Your task to perform on an android device: Open calendar and show me the first week of next month Image 0: 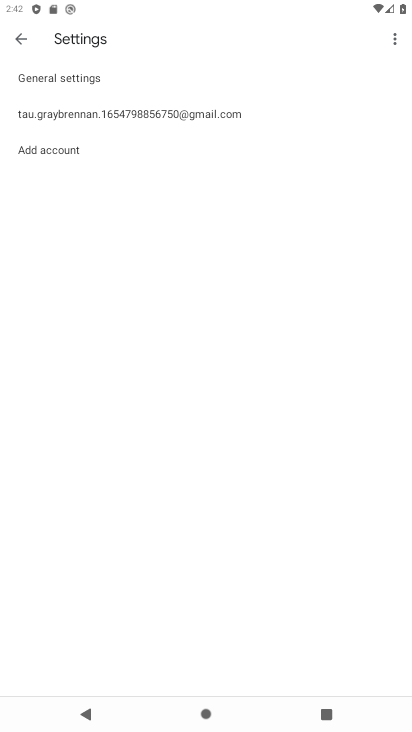
Step 0: press home button
Your task to perform on an android device: Open calendar and show me the first week of next month Image 1: 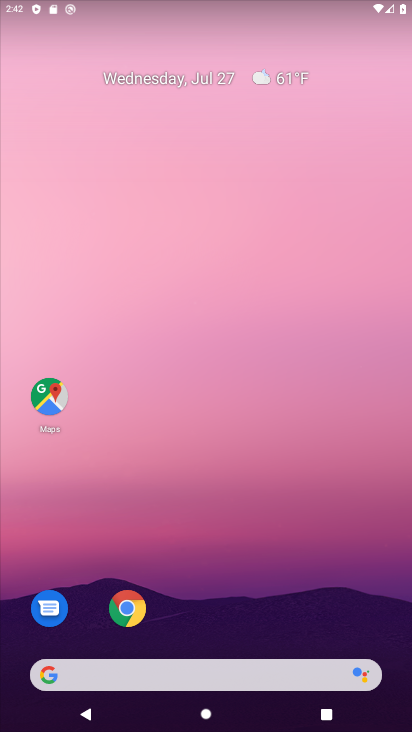
Step 1: drag from (316, 613) to (260, 63)
Your task to perform on an android device: Open calendar and show me the first week of next month Image 2: 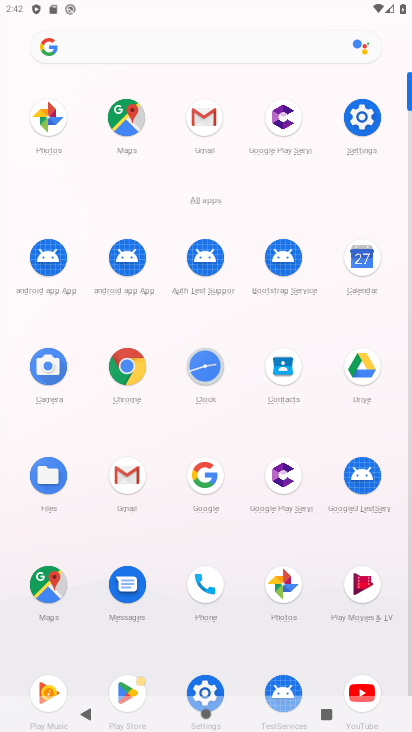
Step 2: click (368, 268)
Your task to perform on an android device: Open calendar and show me the first week of next month Image 3: 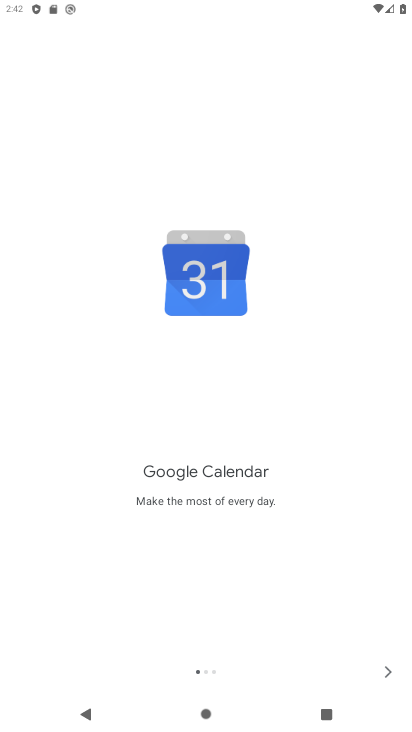
Step 3: click (395, 672)
Your task to perform on an android device: Open calendar and show me the first week of next month Image 4: 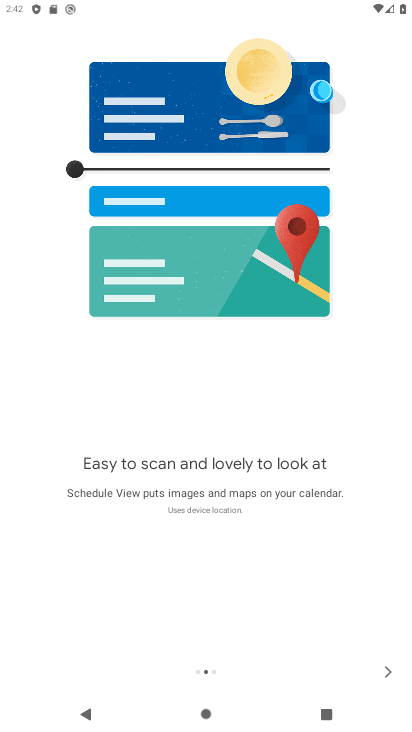
Step 4: click (395, 672)
Your task to perform on an android device: Open calendar and show me the first week of next month Image 5: 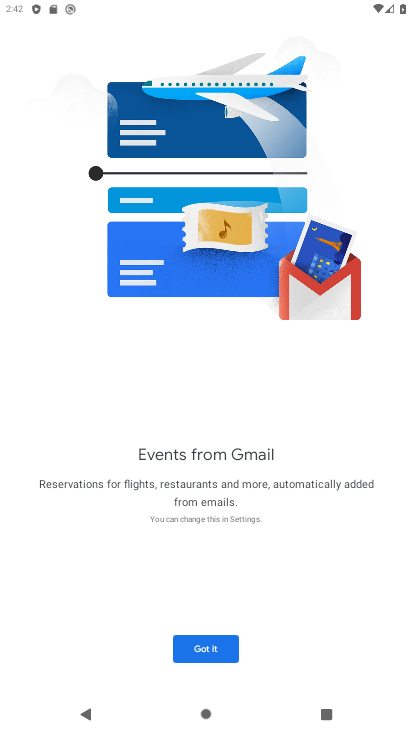
Step 5: click (395, 672)
Your task to perform on an android device: Open calendar and show me the first week of next month Image 6: 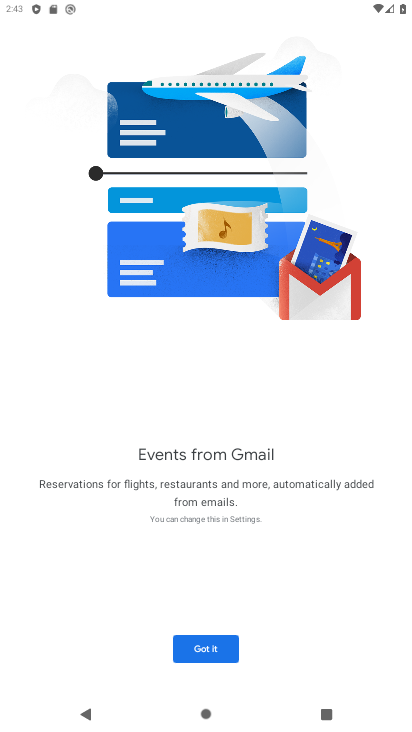
Step 6: click (216, 641)
Your task to perform on an android device: Open calendar and show me the first week of next month Image 7: 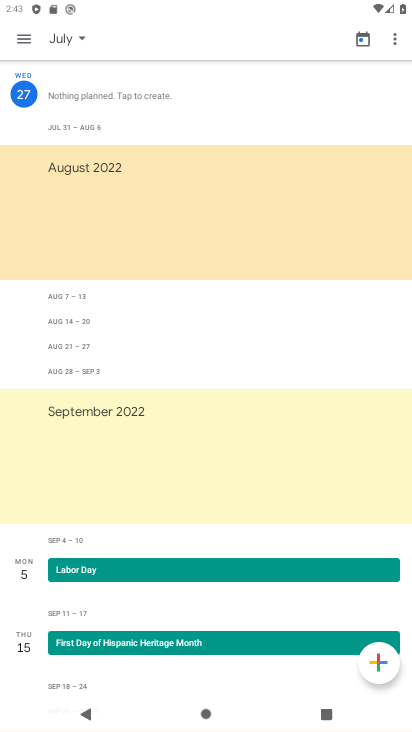
Step 7: click (83, 32)
Your task to perform on an android device: Open calendar and show me the first week of next month Image 8: 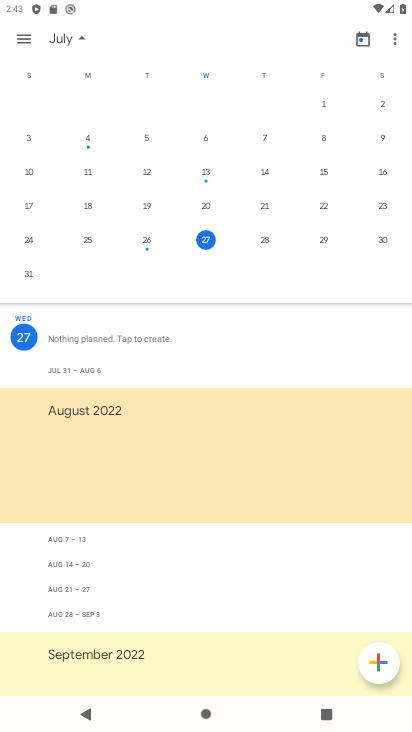
Step 8: task complete